Your task to perform on an android device: turn off javascript in the chrome app Image 0: 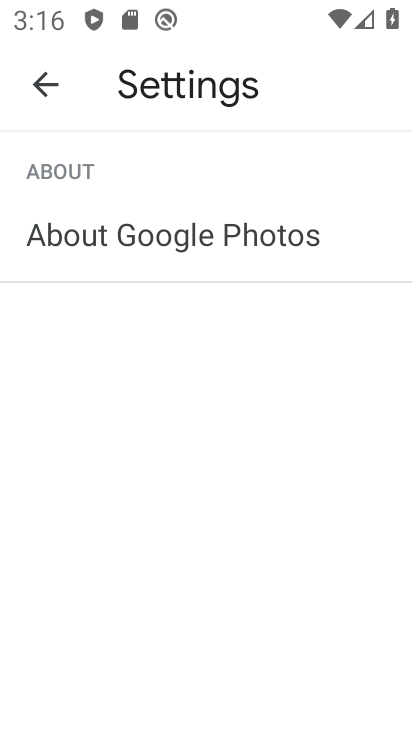
Step 0: press home button
Your task to perform on an android device: turn off javascript in the chrome app Image 1: 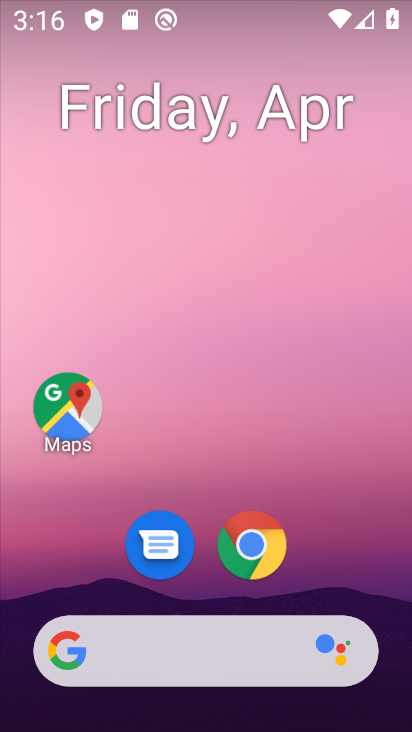
Step 1: click (251, 546)
Your task to perform on an android device: turn off javascript in the chrome app Image 2: 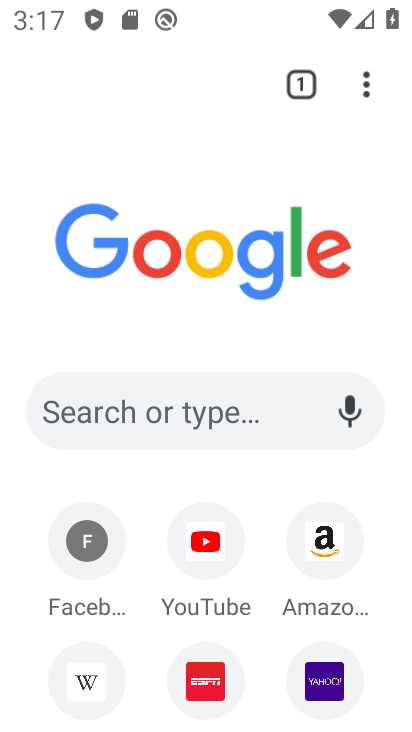
Step 2: click (364, 92)
Your task to perform on an android device: turn off javascript in the chrome app Image 3: 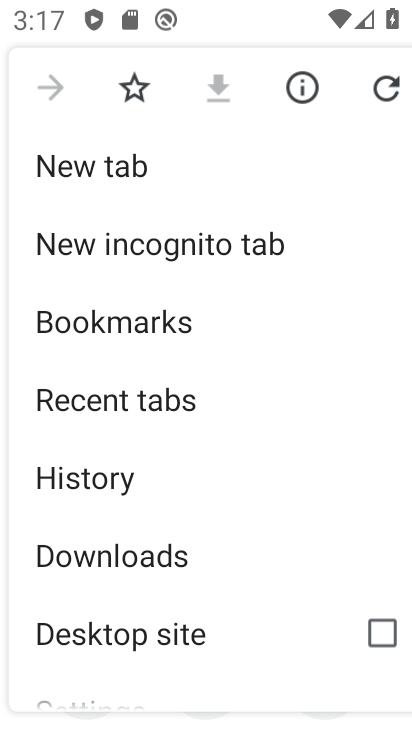
Step 3: drag from (233, 572) to (306, 253)
Your task to perform on an android device: turn off javascript in the chrome app Image 4: 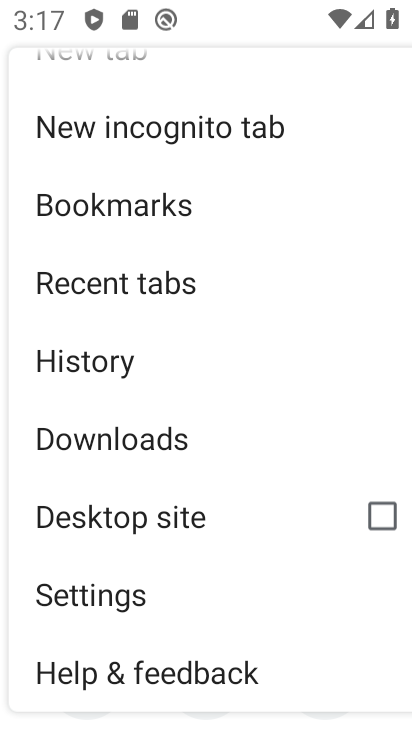
Step 4: click (98, 599)
Your task to perform on an android device: turn off javascript in the chrome app Image 5: 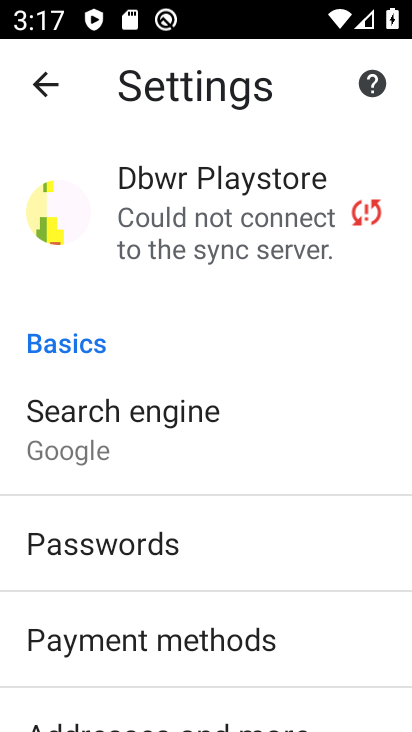
Step 5: drag from (310, 646) to (321, 310)
Your task to perform on an android device: turn off javascript in the chrome app Image 6: 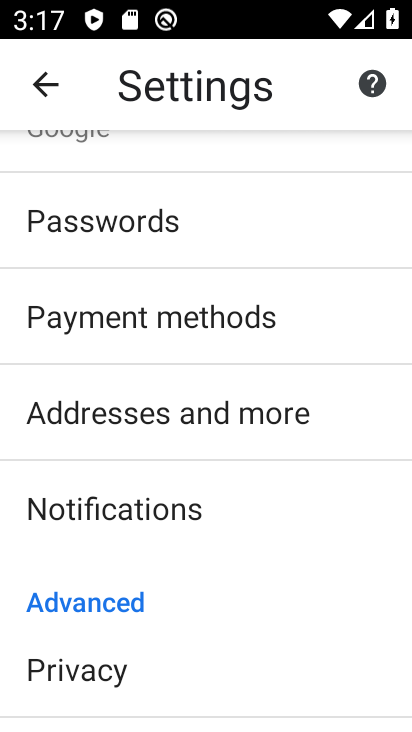
Step 6: drag from (278, 596) to (325, 207)
Your task to perform on an android device: turn off javascript in the chrome app Image 7: 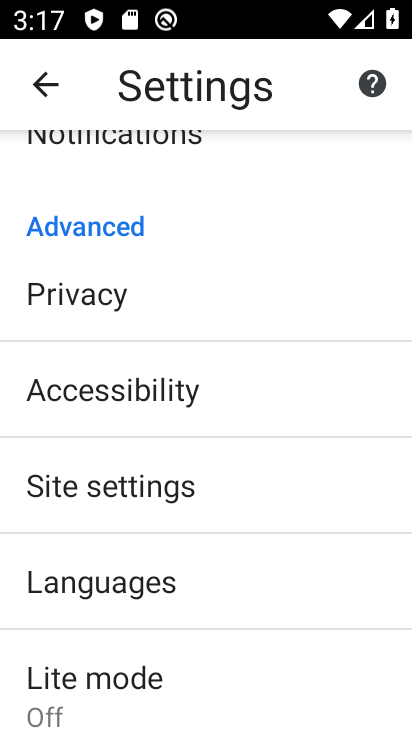
Step 7: click (66, 490)
Your task to perform on an android device: turn off javascript in the chrome app Image 8: 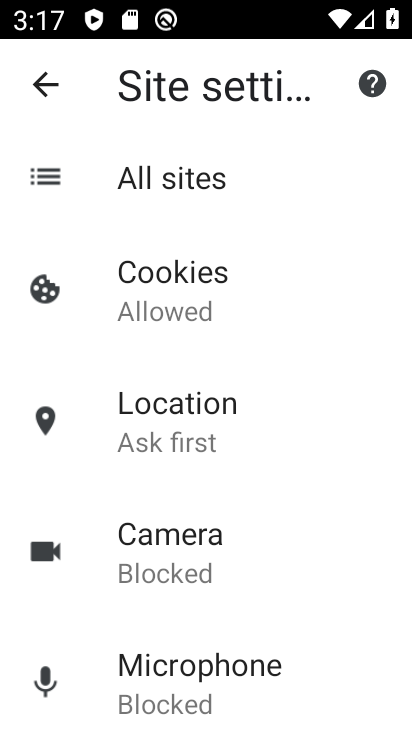
Step 8: drag from (323, 619) to (314, 224)
Your task to perform on an android device: turn off javascript in the chrome app Image 9: 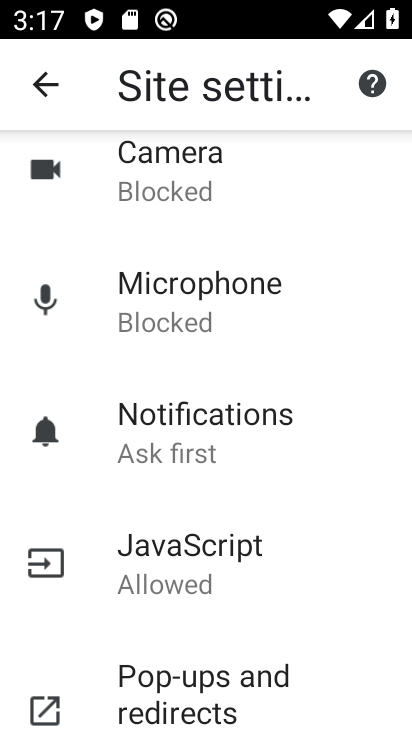
Step 9: click (159, 548)
Your task to perform on an android device: turn off javascript in the chrome app Image 10: 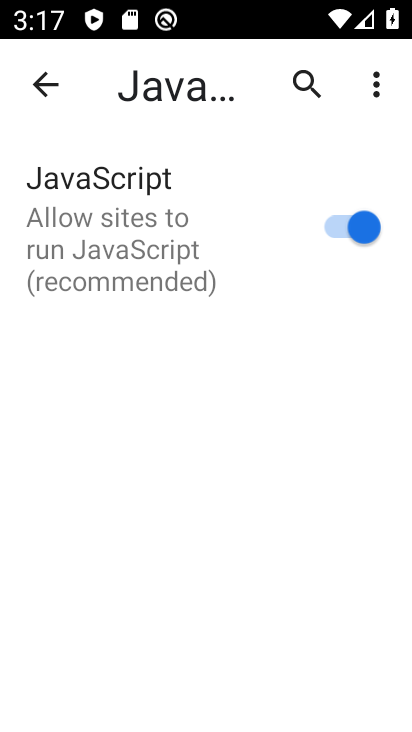
Step 10: click (328, 225)
Your task to perform on an android device: turn off javascript in the chrome app Image 11: 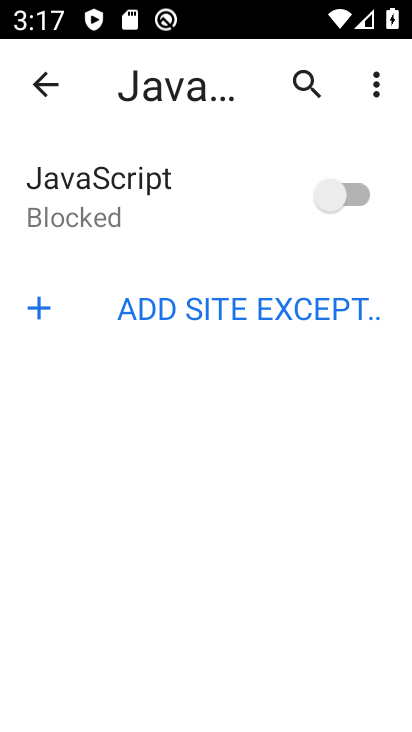
Step 11: task complete